Your task to perform on an android device: Open the web browser Image 0: 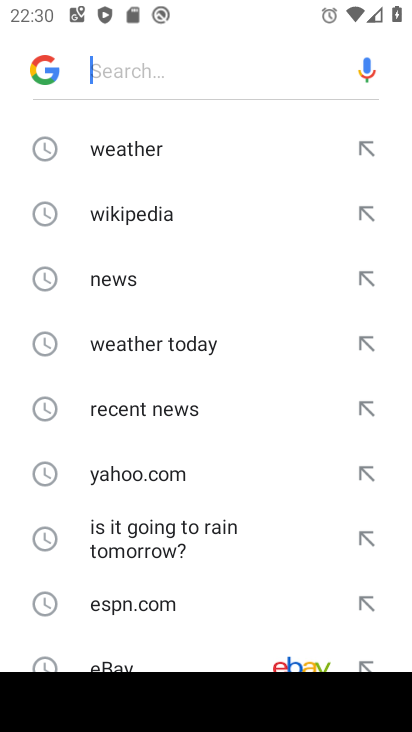
Step 0: press home button
Your task to perform on an android device: Open the web browser Image 1: 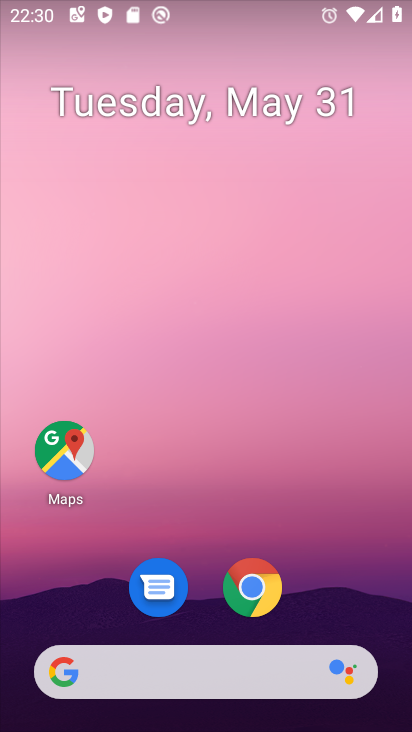
Step 1: drag from (348, 597) to (354, 189)
Your task to perform on an android device: Open the web browser Image 2: 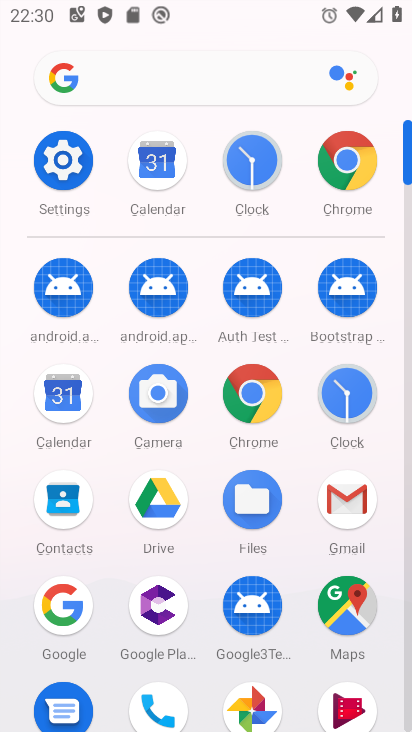
Step 2: click (265, 410)
Your task to perform on an android device: Open the web browser Image 3: 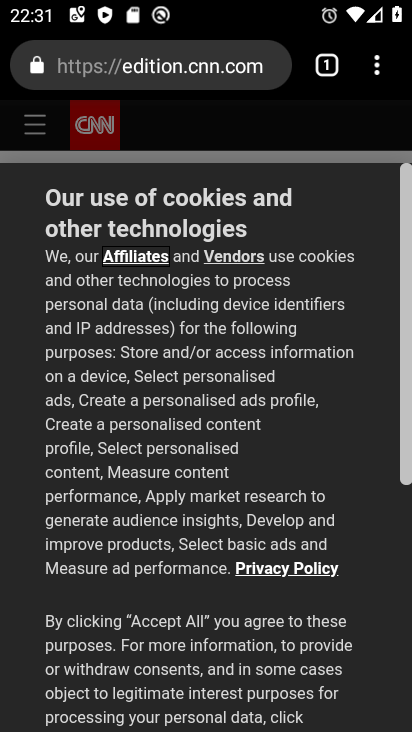
Step 3: task complete